Your task to perform on an android device: Open calendar and show me the second week of next month Image 0: 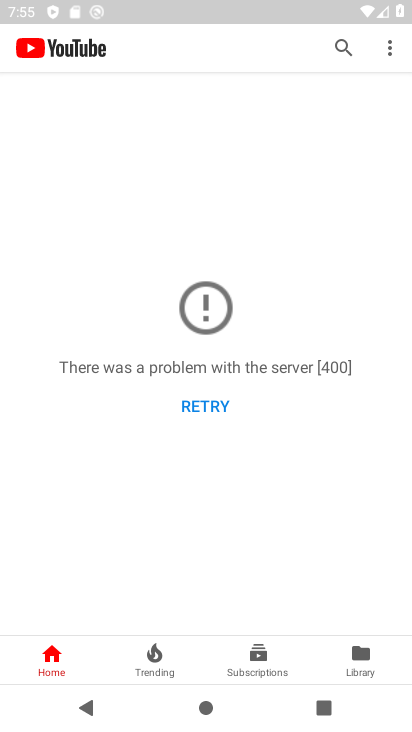
Step 0: press home button
Your task to perform on an android device: Open calendar and show me the second week of next month Image 1: 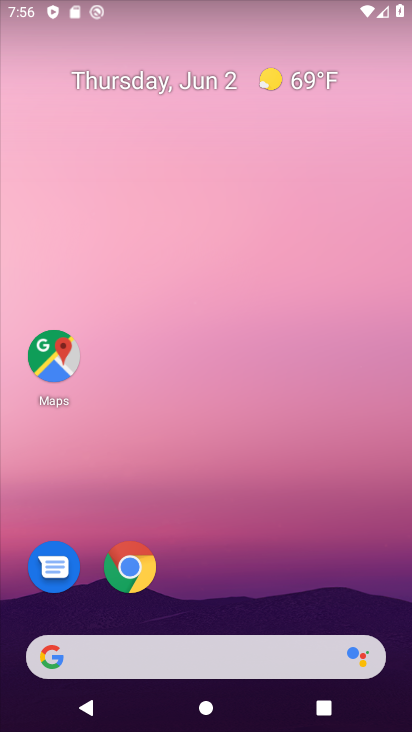
Step 1: drag from (398, 600) to (314, 89)
Your task to perform on an android device: Open calendar and show me the second week of next month Image 2: 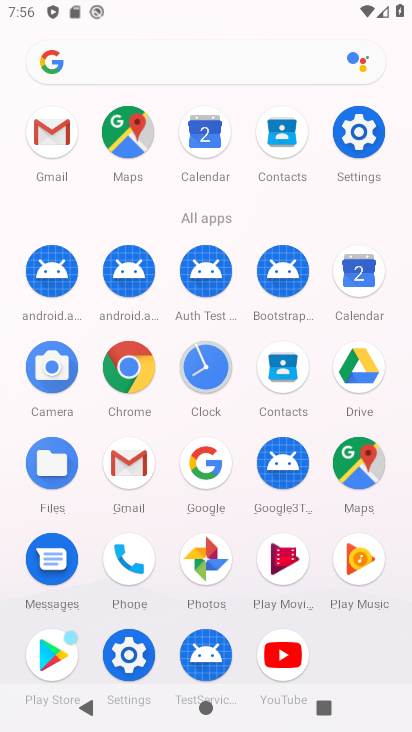
Step 2: click (360, 278)
Your task to perform on an android device: Open calendar and show me the second week of next month Image 3: 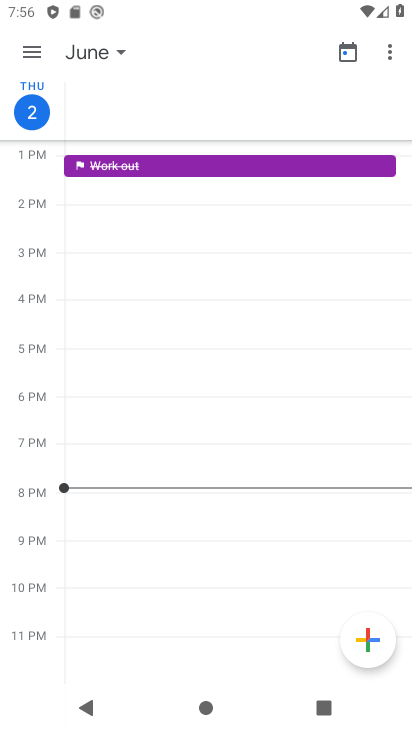
Step 3: click (134, 78)
Your task to perform on an android device: Open calendar and show me the second week of next month Image 4: 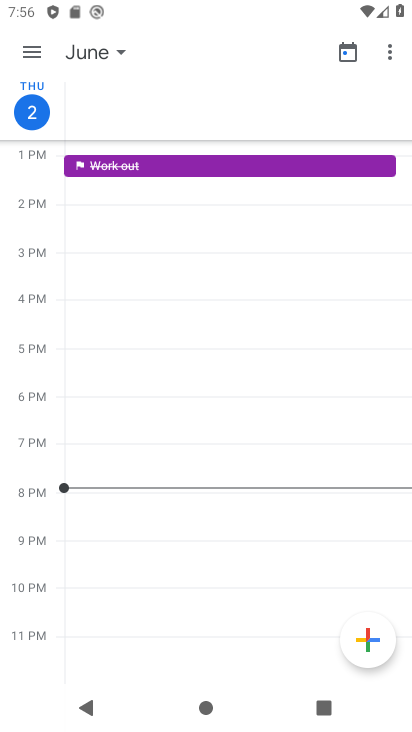
Step 4: click (34, 51)
Your task to perform on an android device: Open calendar and show me the second week of next month Image 5: 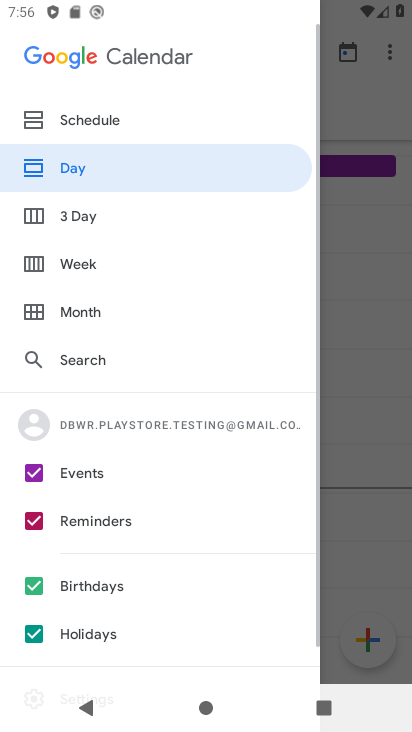
Step 5: click (80, 261)
Your task to perform on an android device: Open calendar and show me the second week of next month Image 6: 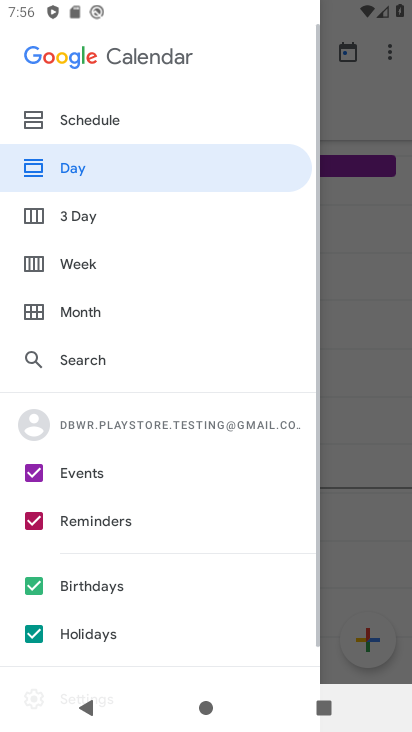
Step 6: click (73, 255)
Your task to perform on an android device: Open calendar and show me the second week of next month Image 7: 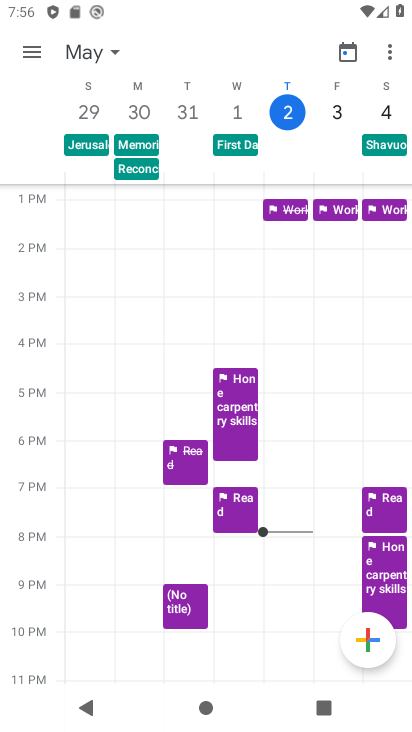
Step 7: click (111, 53)
Your task to perform on an android device: Open calendar and show me the second week of next month Image 8: 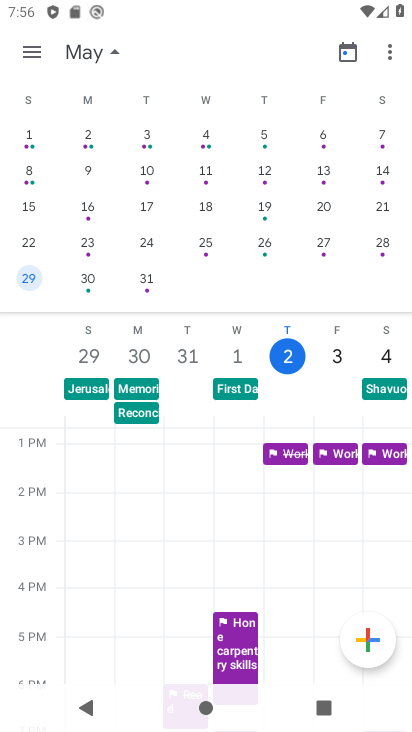
Step 8: drag from (391, 178) to (14, 146)
Your task to perform on an android device: Open calendar and show me the second week of next month Image 9: 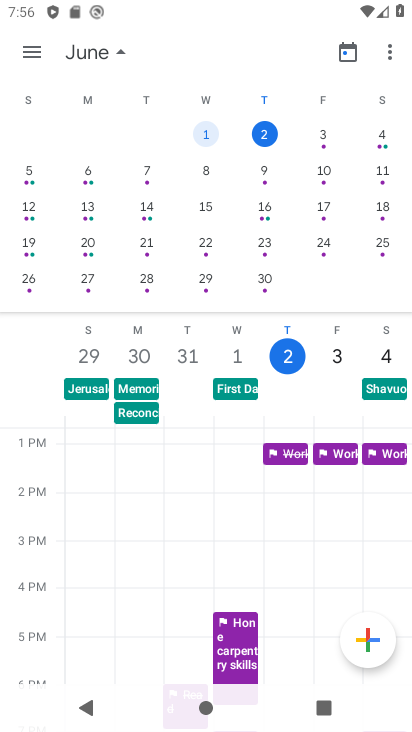
Step 9: drag from (389, 229) to (0, 169)
Your task to perform on an android device: Open calendar and show me the second week of next month Image 10: 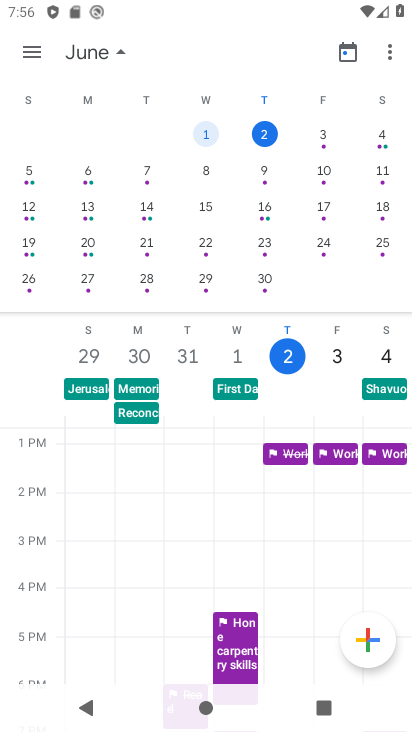
Step 10: drag from (373, 121) to (6, 220)
Your task to perform on an android device: Open calendar and show me the second week of next month Image 11: 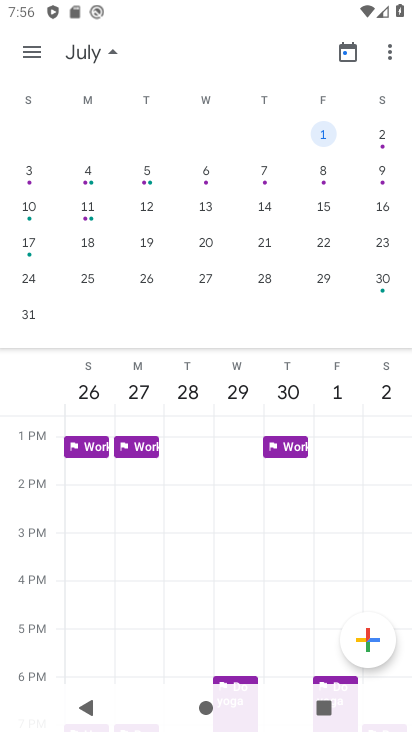
Step 11: click (21, 203)
Your task to perform on an android device: Open calendar and show me the second week of next month Image 12: 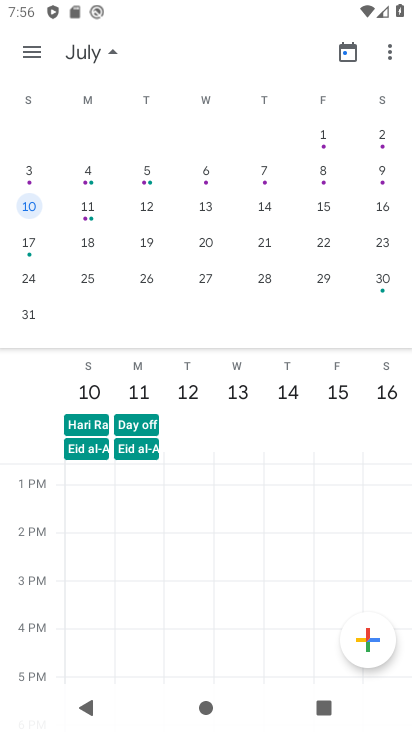
Step 12: task complete